Your task to perform on an android device: Open my contact list Image 0: 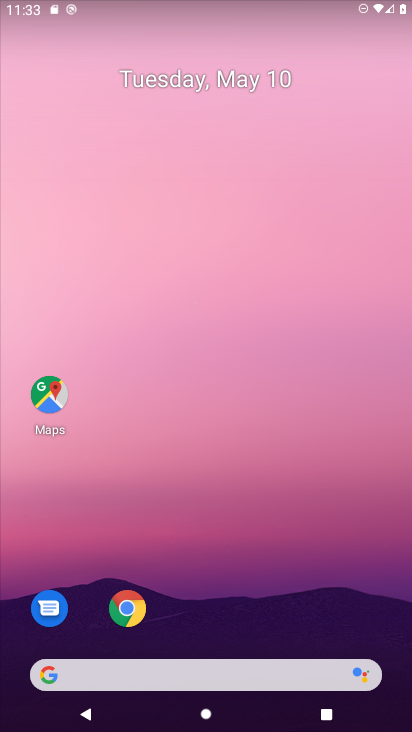
Step 0: drag from (298, 569) to (195, 62)
Your task to perform on an android device: Open my contact list Image 1: 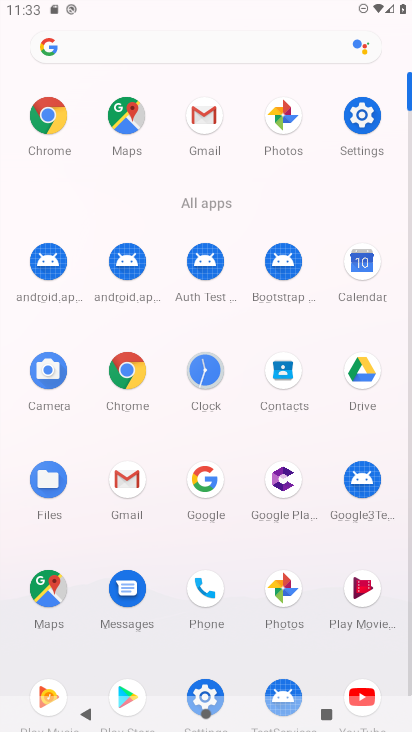
Step 1: click (286, 370)
Your task to perform on an android device: Open my contact list Image 2: 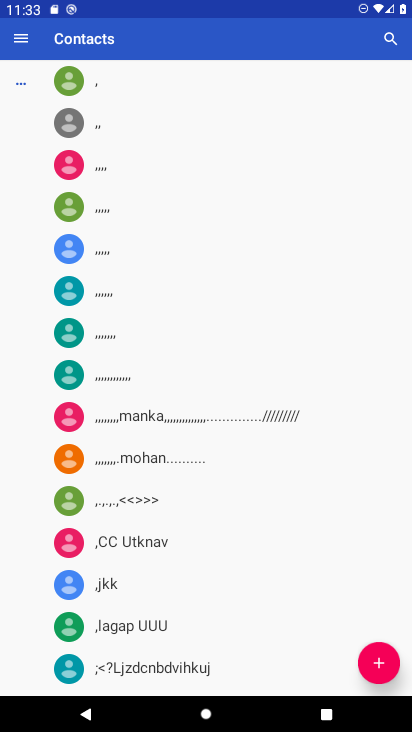
Step 2: task complete